Your task to perform on an android device: Play the new Ed Sheeran video on YouTube Image 0: 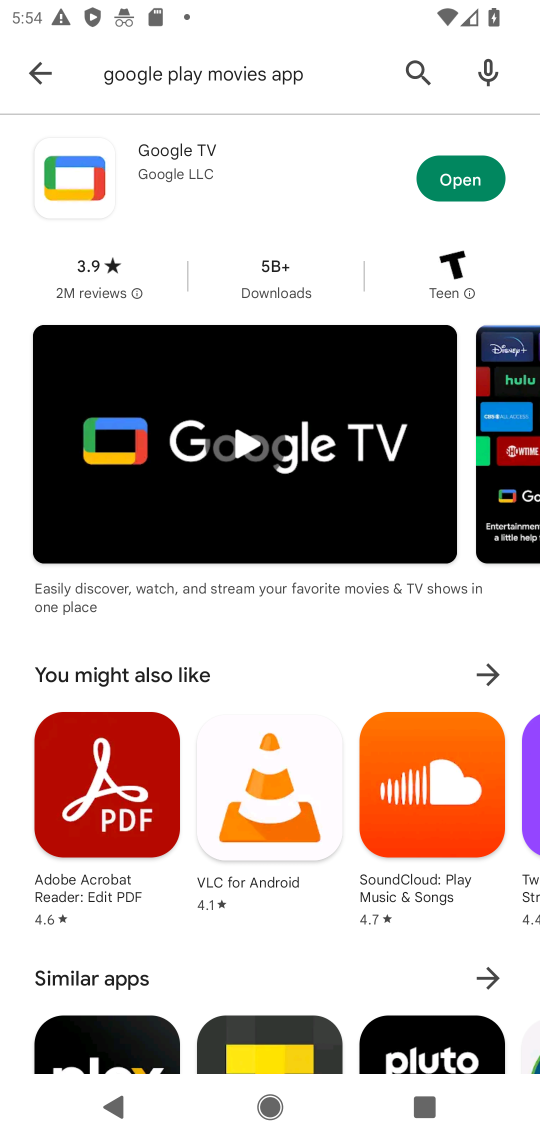
Step 0: press home button
Your task to perform on an android device: Play the new Ed Sheeran video on YouTube Image 1: 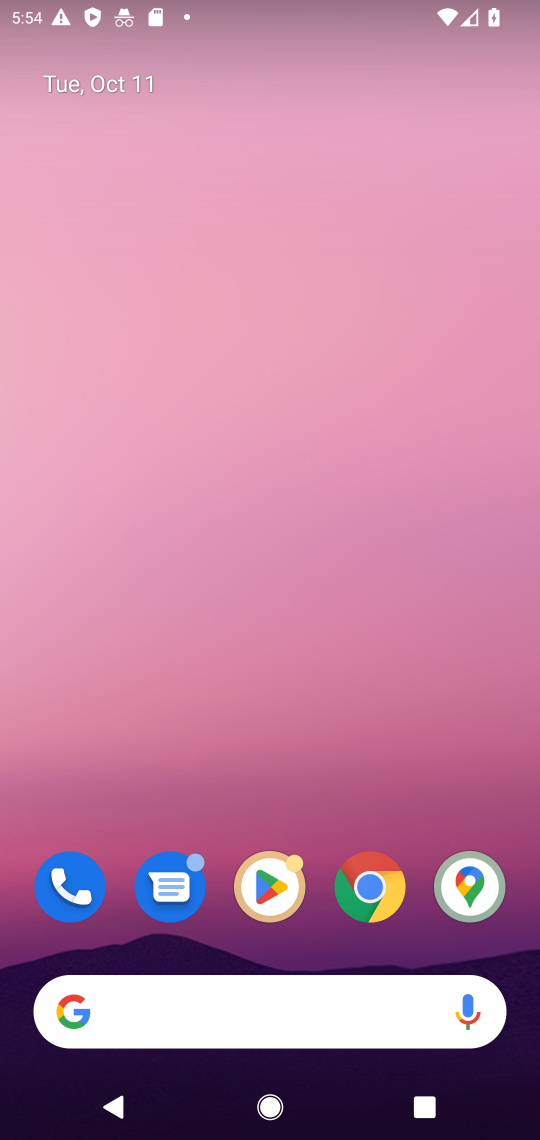
Step 1: click (273, 1013)
Your task to perform on an android device: Play the new Ed Sheeran video on YouTube Image 2: 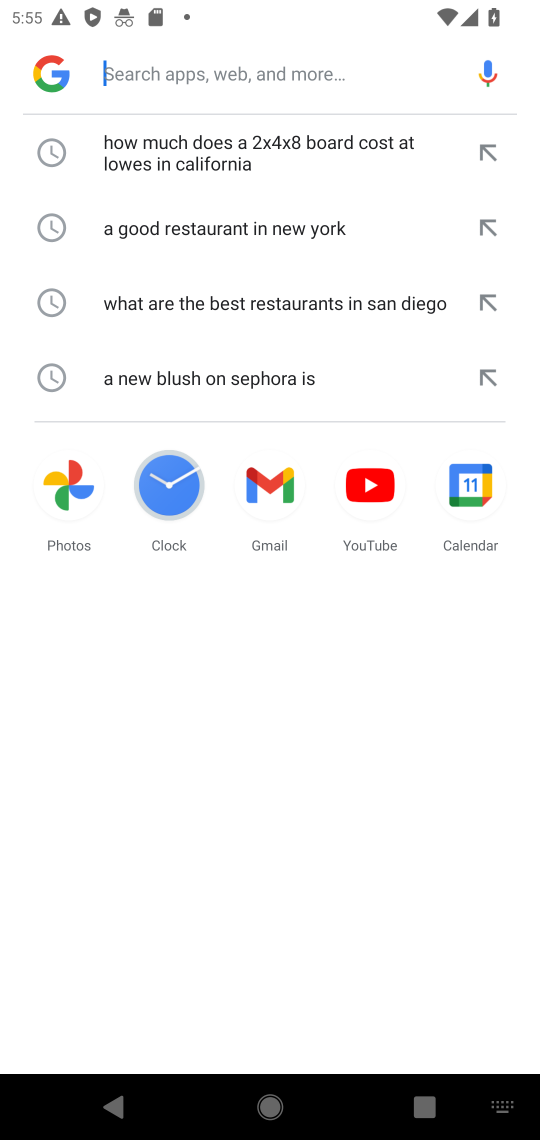
Step 2: click (354, 504)
Your task to perform on an android device: Play the new Ed Sheeran video on YouTube Image 3: 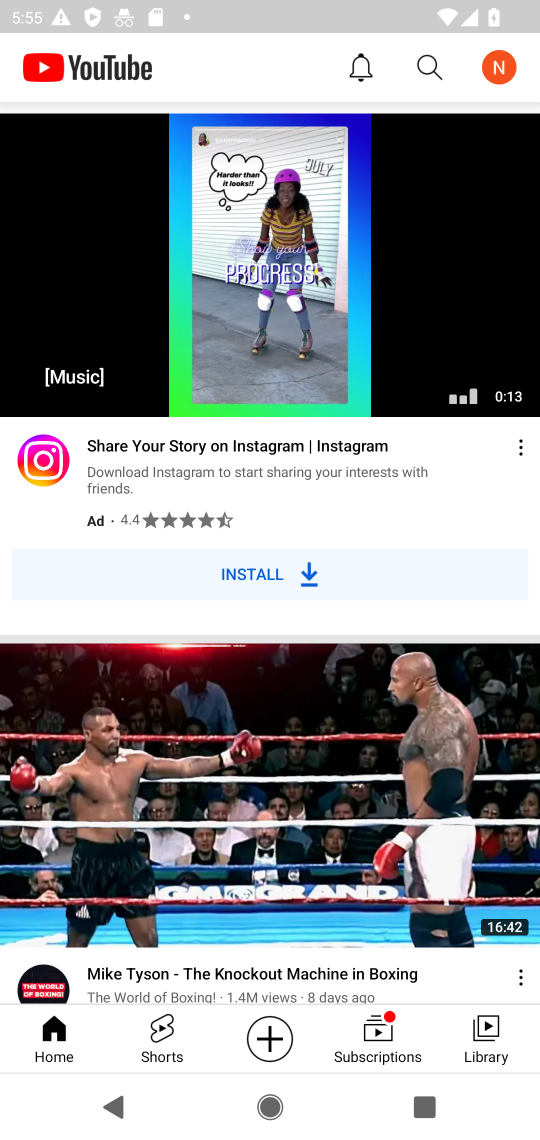
Step 3: click (421, 54)
Your task to perform on an android device: Play the new Ed Sheeran video on YouTube Image 4: 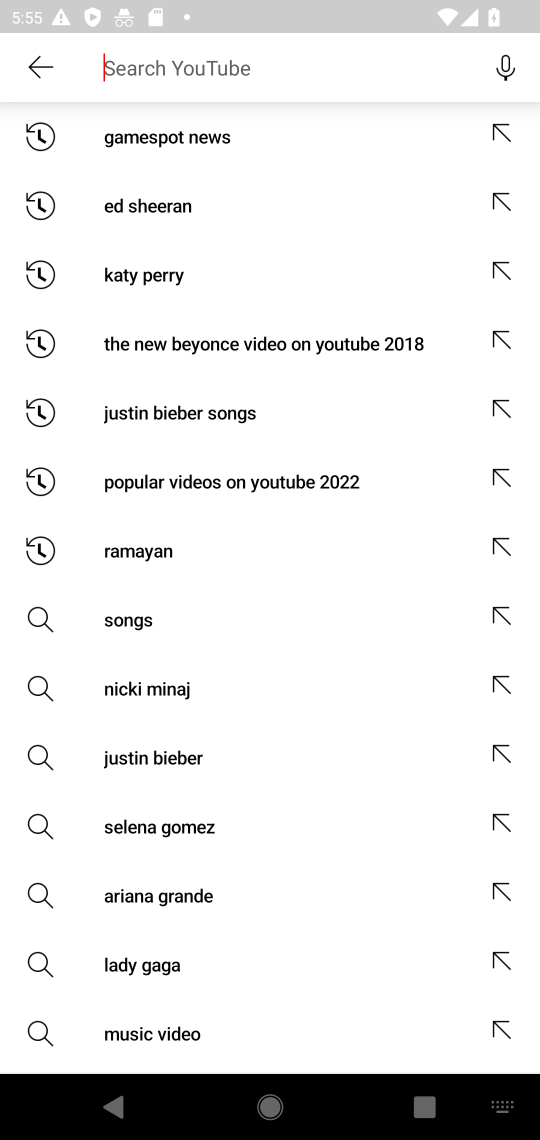
Step 4: type "Play the new Ed Sheeran video on YouTube"
Your task to perform on an android device: Play the new Ed Sheeran video on YouTube Image 5: 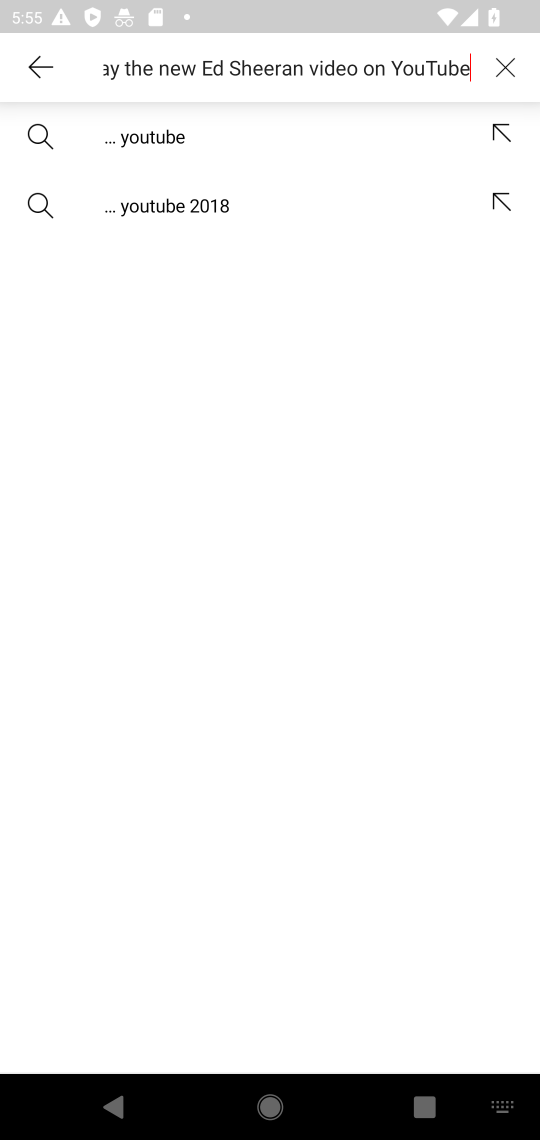
Step 5: click (180, 135)
Your task to perform on an android device: Play the new Ed Sheeran video on YouTube Image 6: 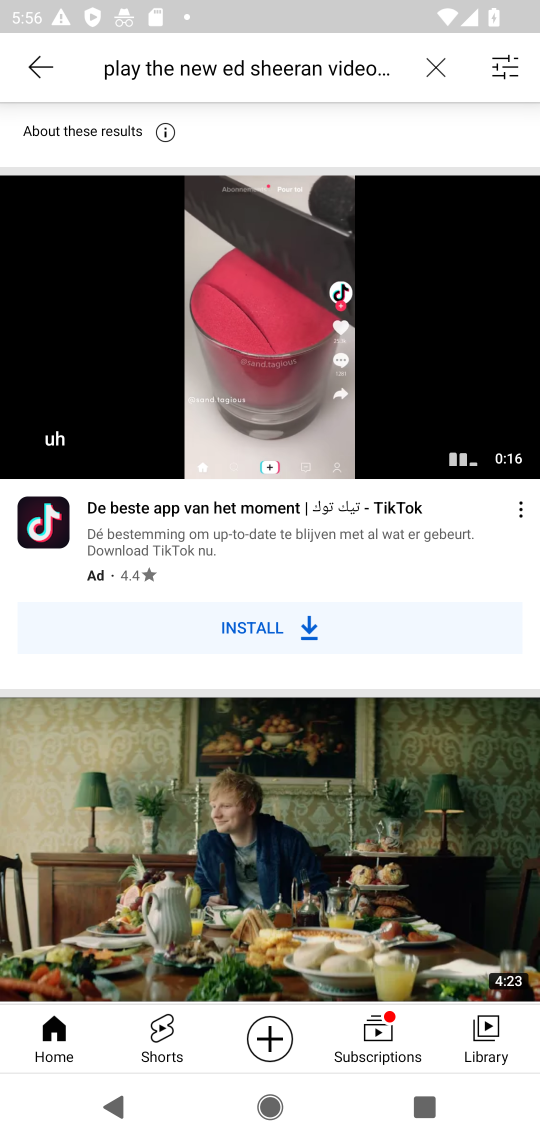
Step 6: task complete